Your task to perform on an android device: toggle notification dots Image 0: 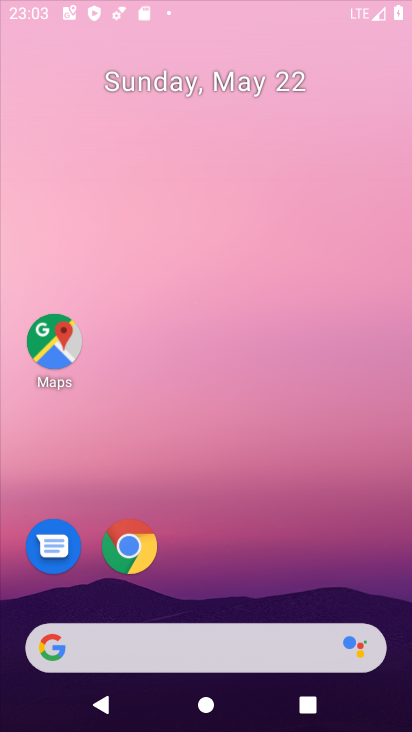
Step 0: drag from (179, 636) to (251, 81)
Your task to perform on an android device: toggle notification dots Image 1: 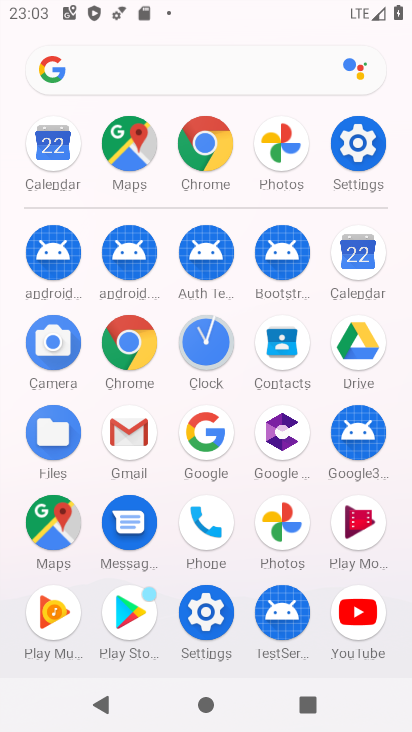
Step 1: click (361, 129)
Your task to perform on an android device: toggle notification dots Image 2: 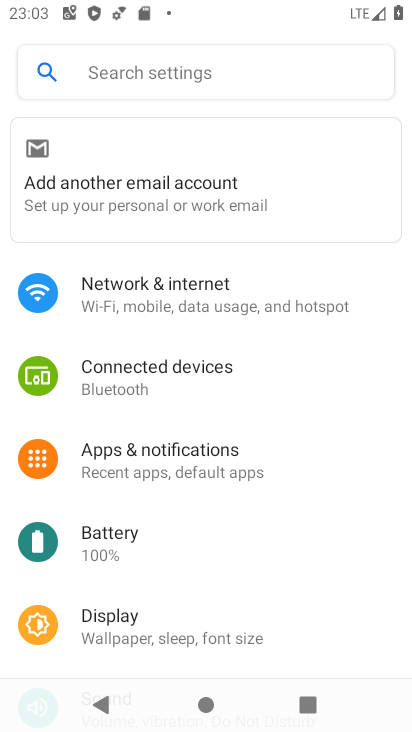
Step 2: drag from (212, 616) to (248, 433)
Your task to perform on an android device: toggle notification dots Image 3: 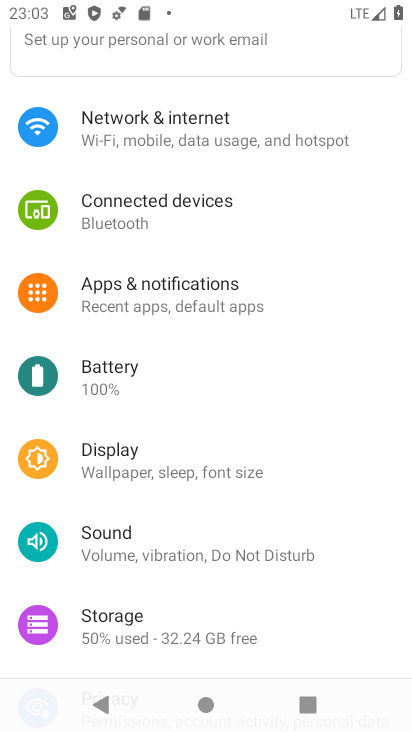
Step 3: click (161, 287)
Your task to perform on an android device: toggle notification dots Image 4: 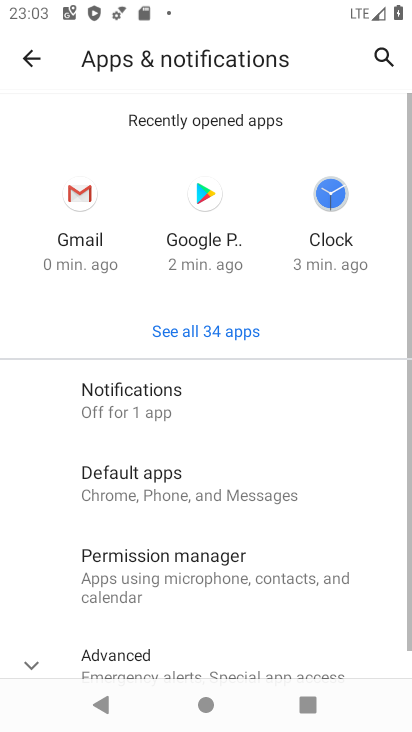
Step 4: click (173, 409)
Your task to perform on an android device: toggle notification dots Image 5: 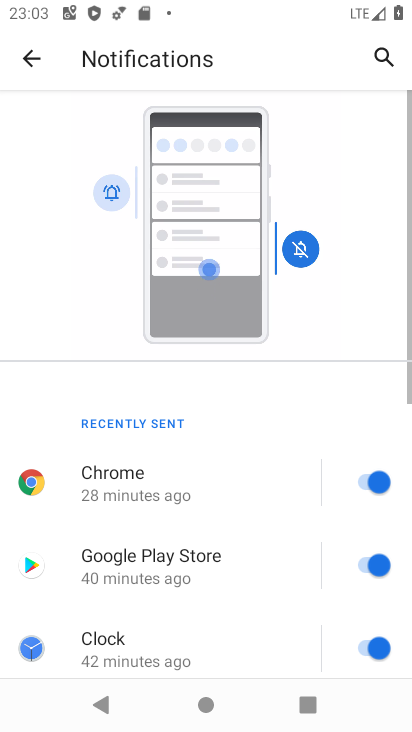
Step 5: drag from (278, 567) to (351, 91)
Your task to perform on an android device: toggle notification dots Image 6: 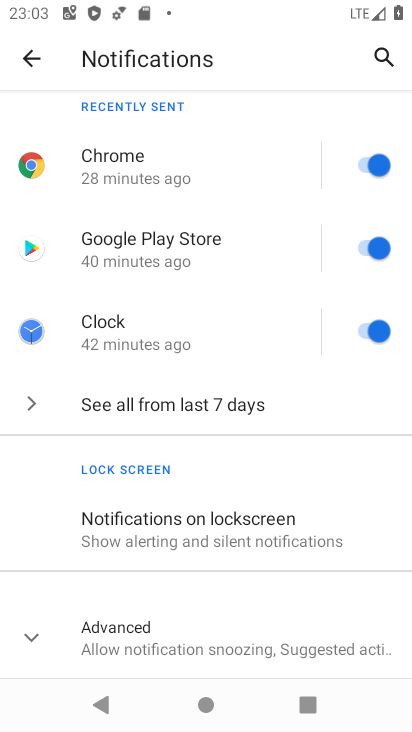
Step 6: drag from (250, 617) to (288, 232)
Your task to perform on an android device: toggle notification dots Image 7: 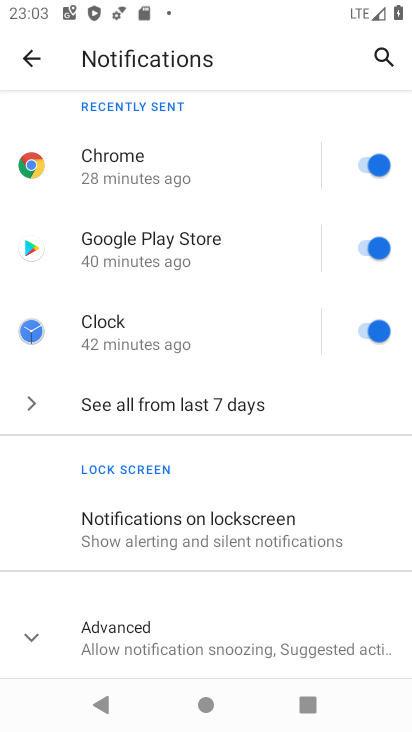
Step 7: click (183, 630)
Your task to perform on an android device: toggle notification dots Image 8: 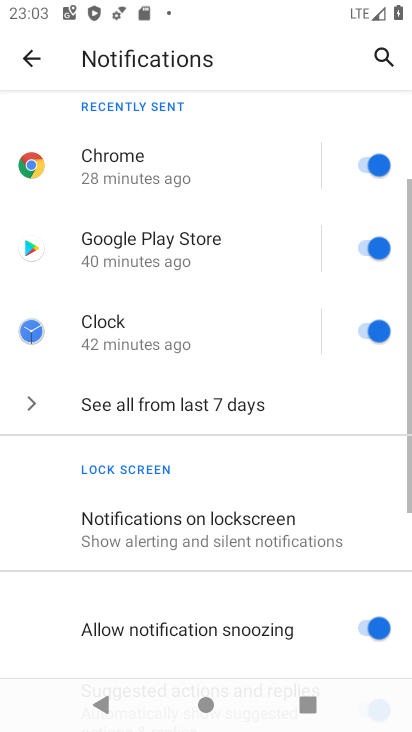
Step 8: drag from (197, 627) to (256, 173)
Your task to perform on an android device: toggle notification dots Image 9: 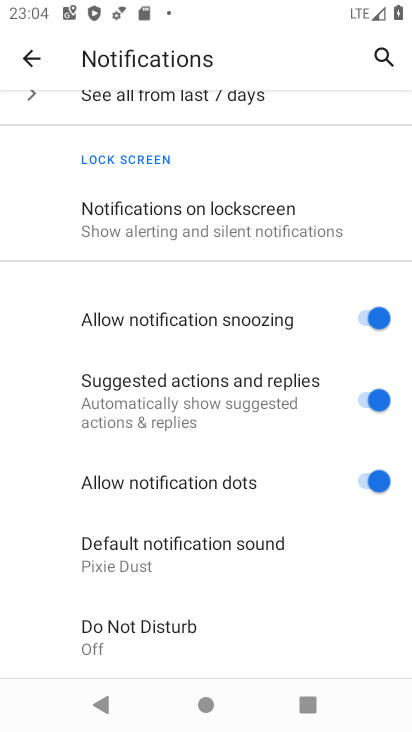
Step 9: drag from (210, 583) to (295, 301)
Your task to perform on an android device: toggle notification dots Image 10: 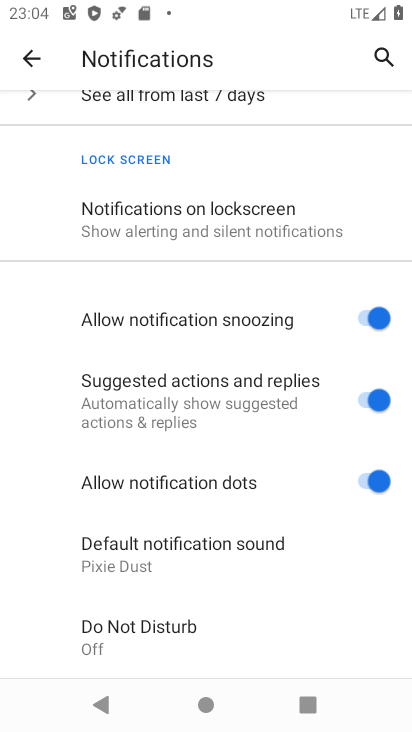
Step 10: drag from (223, 634) to (233, 338)
Your task to perform on an android device: toggle notification dots Image 11: 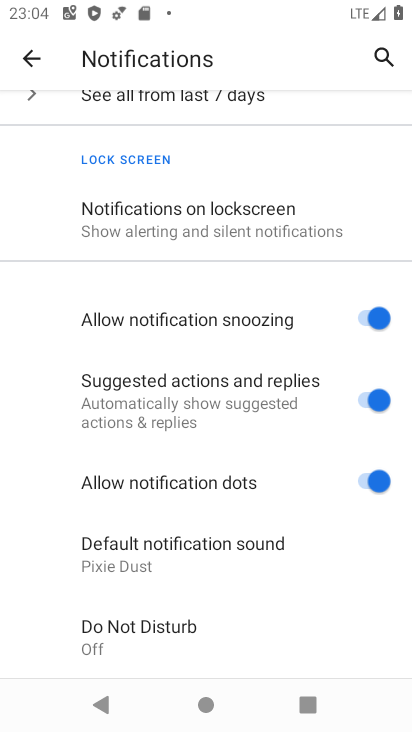
Step 11: drag from (171, 564) to (234, 155)
Your task to perform on an android device: toggle notification dots Image 12: 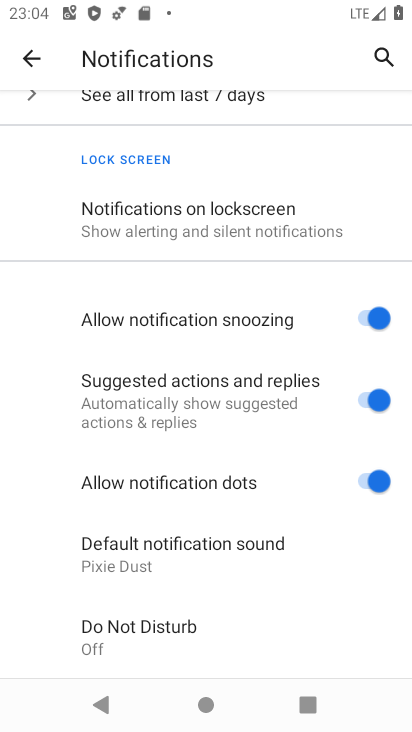
Step 12: drag from (238, 635) to (280, 275)
Your task to perform on an android device: toggle notification dots Image 13: 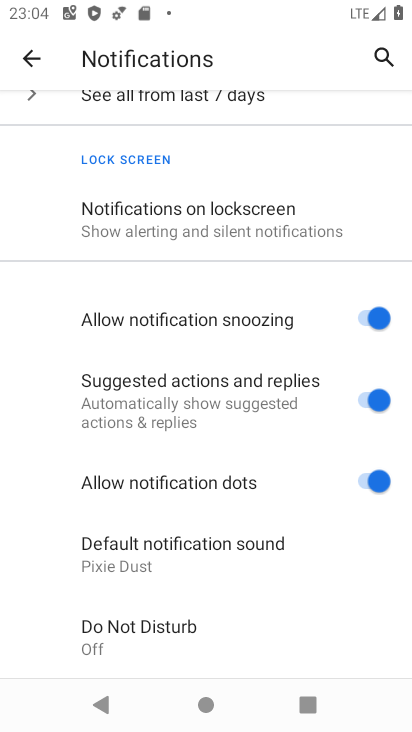
Step 13: drag from (248, 578) to (296, 195)
Your task to perform on an android device: toggle notification dots Image 14: 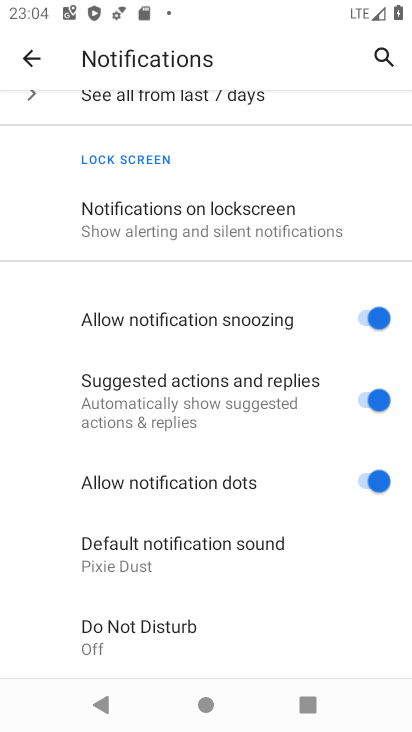
Step 14: drag from (231, 631) to (307, 240)
Your task to perform on an android device: toggle notification dots Image 15: 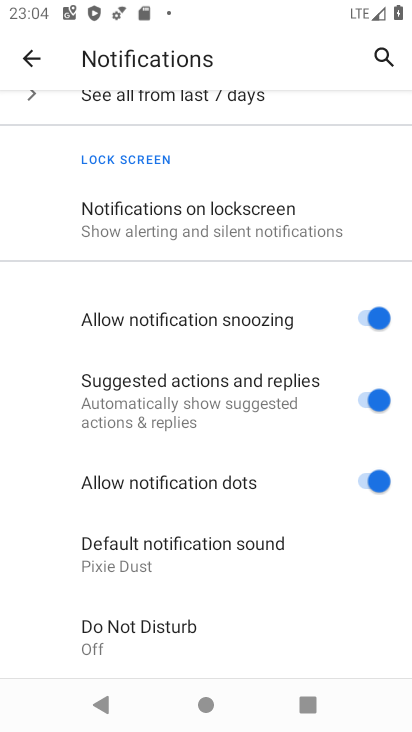
Step 15: drag from (238, 158) to (246, 608)
Your task to perform on an android device: toggle notification dots Image 16: 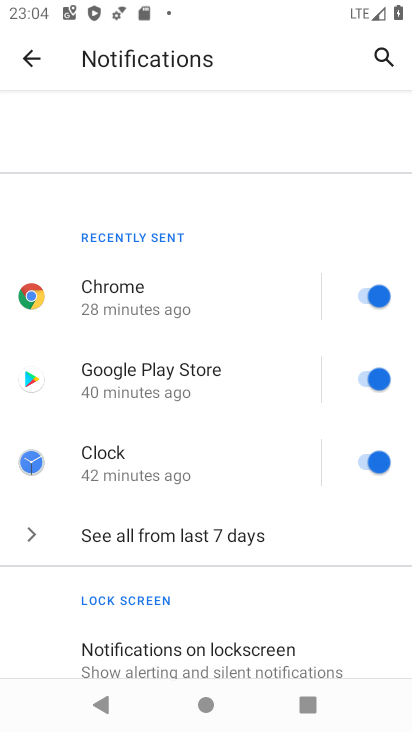
Step 16: drag from (248, 502) to (286, 62)
Your task to perform on an android device: toggle notification dots Image 17: 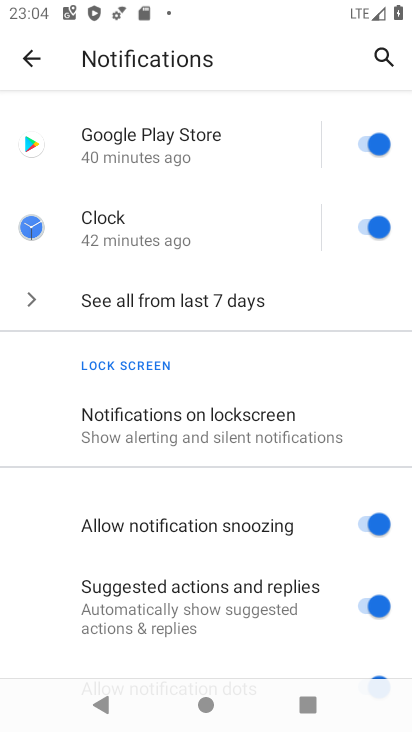
Step 17: drag from (220, 560) to (261, 125)
Your task to perform on an android device: toggle notification dots Image 18: 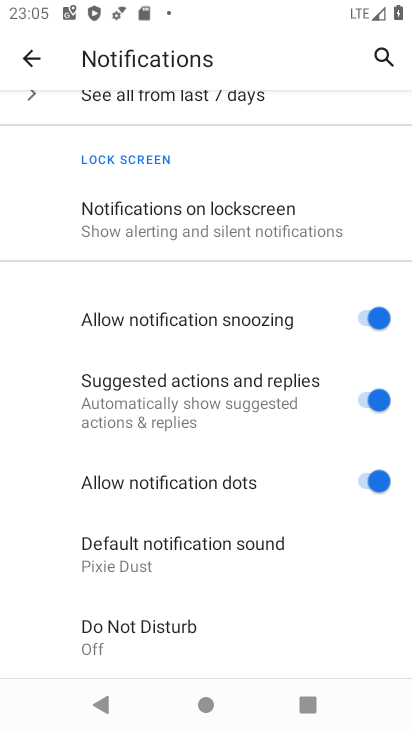
Step 18: click (360, 475)
Your task to perform on an android device: toggle notification dots Image 19: 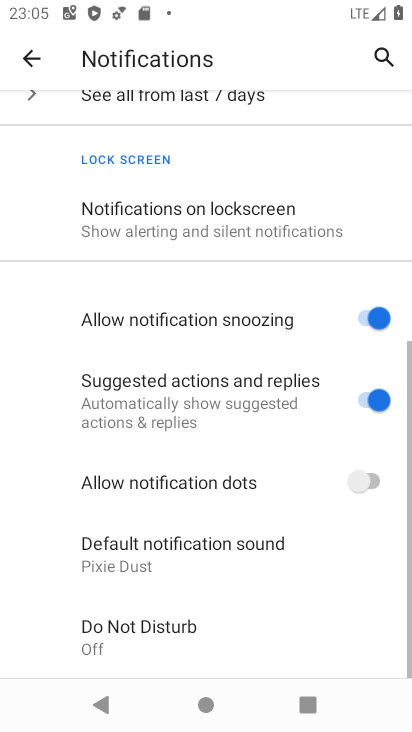
Step 19: task complete